Your task to perform on an android device: set the timer Image 0: 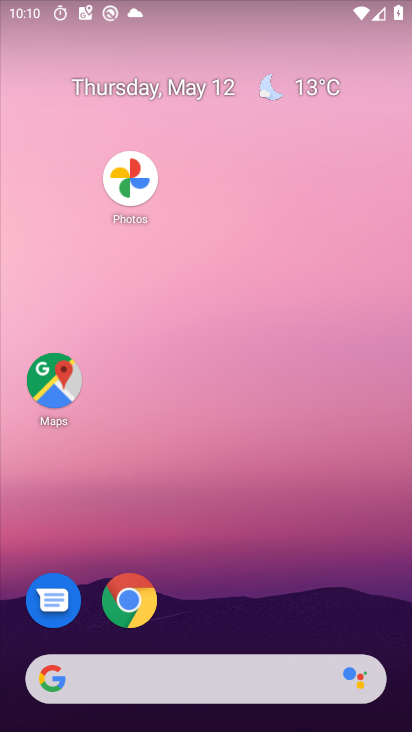
Step 0: drag from (209, 592) to (12, 78)
Your task to perform on an android device: set the timer Image 1: 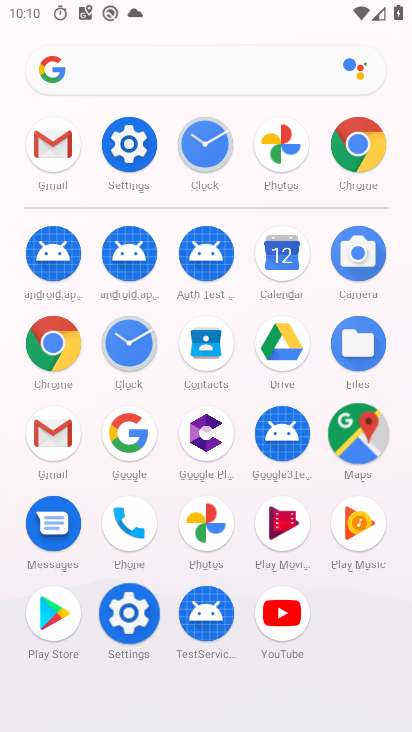
Step 1: click (123, 356)
Your task to perform on an android device: set the timer Image 2: 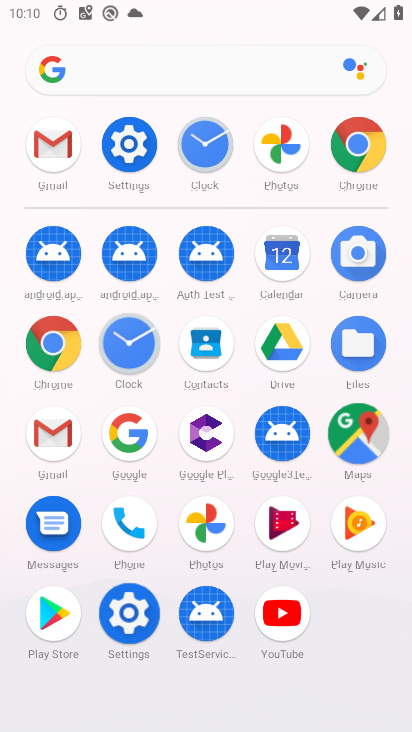
Step 2: click (123, 356)
Your task to perform on an android device: set the timer Image 3: 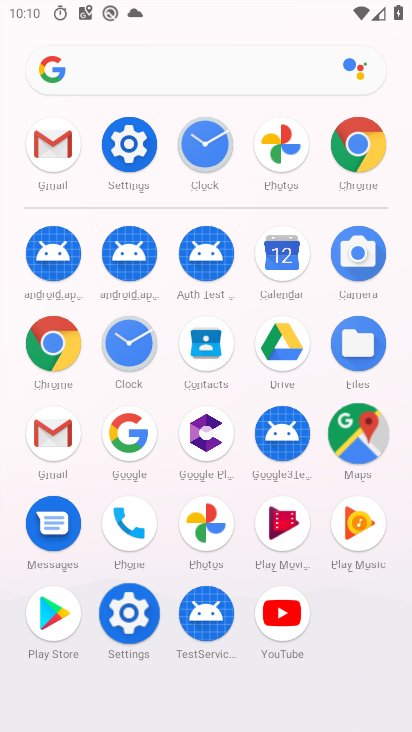
Step 3: click (123, 356)
Your task to perform on an android device: set the timer Image 4: 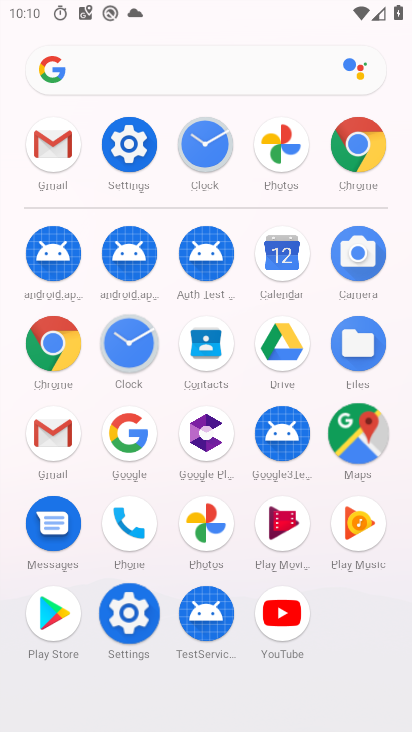
Step 4: click (122, 354)
Your task to perform on an android device: set the timer Image 5: 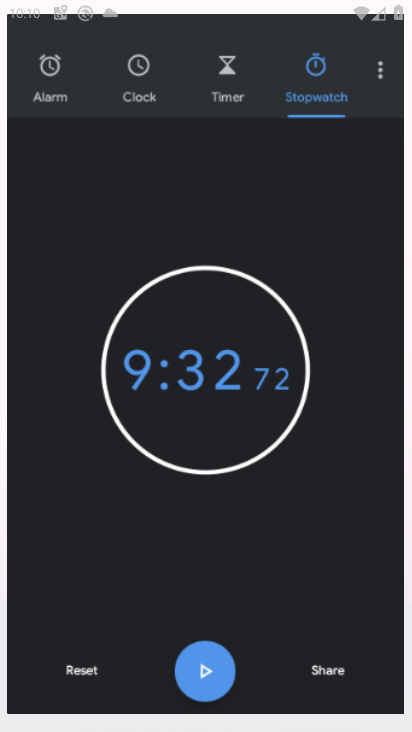
Step 5: click (123, 348)
Your task to perform on an android device: set the timer Image 6: 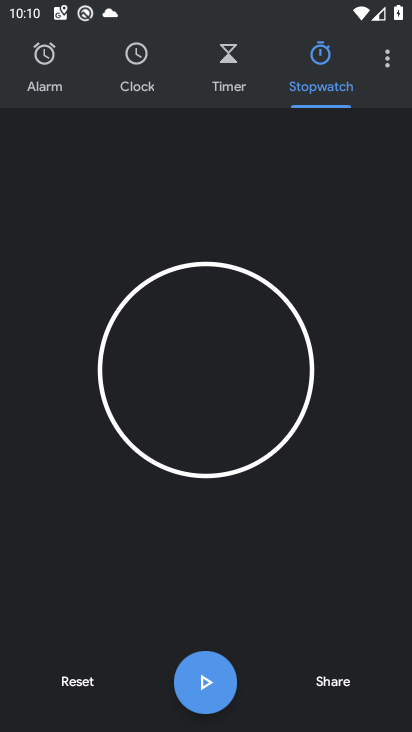
Step 6: click (125, 346)
Your task to perform on an android device: set the timer Image 7: 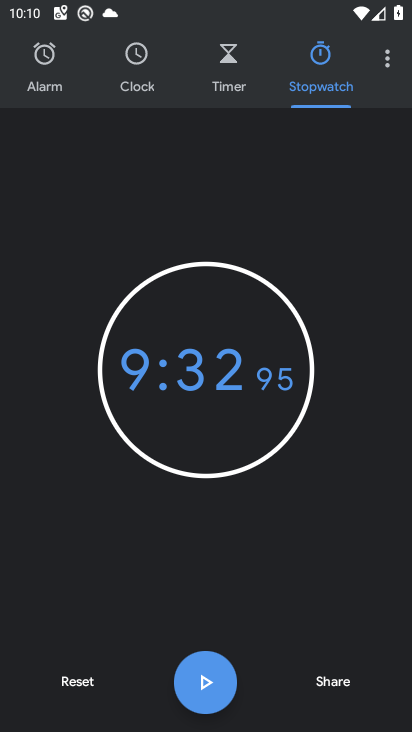
Step 7: click (232, 58)
Your task to perform on an android device: set the timer Image 8: 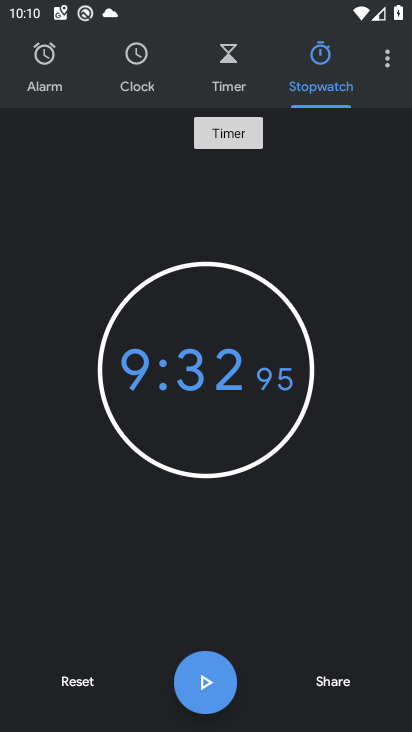
Step 8: click (224, 68)
Your task to perform on an android device: set the timer Image 9: 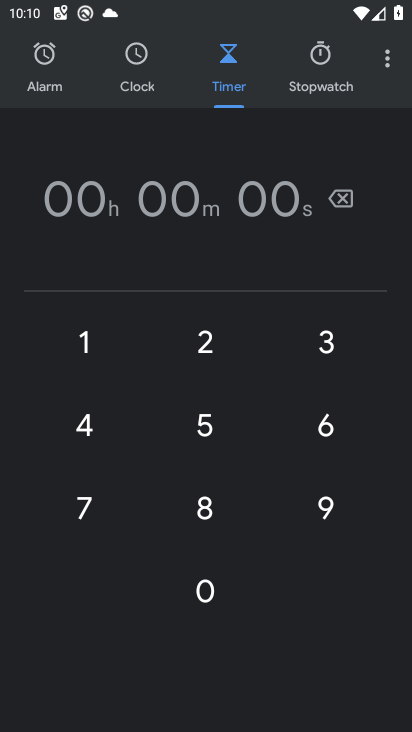
Step 9: click (203, 500)
Your task to perform on an android device: set the timer Image 10: 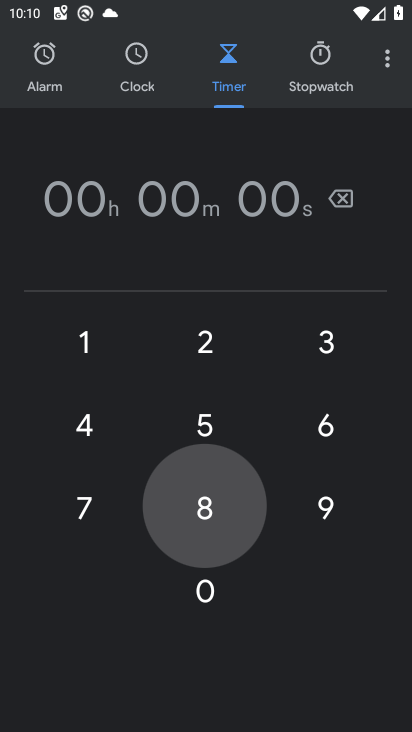
Step 10: click (203, 500)
Your task to perform on an android device: set the timer Image 11: 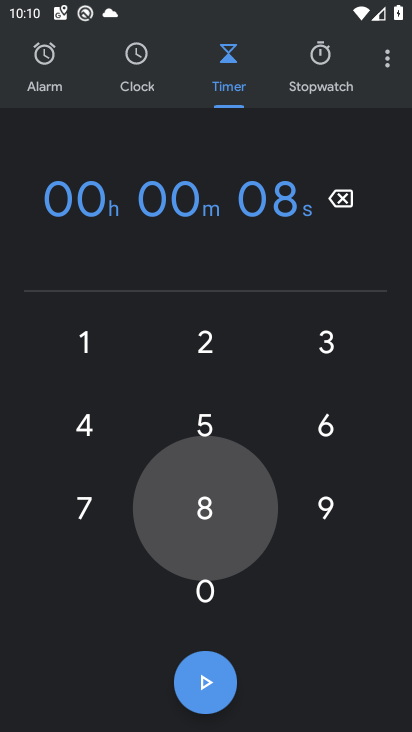
Step 11: click (205, 500)
Your task to perform on an android device: set the timer Image 12: 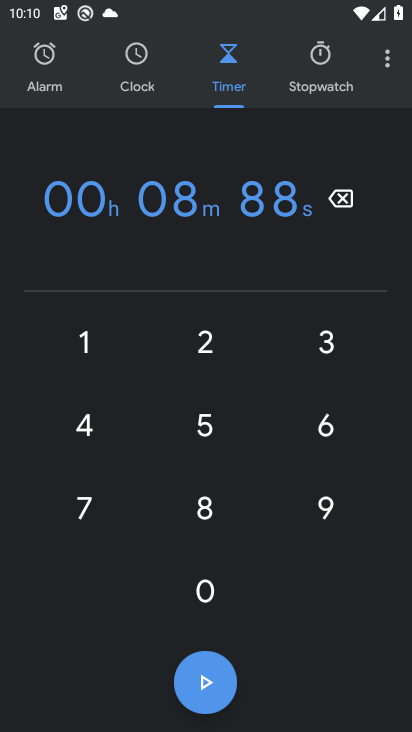
Step 12: click (199, 685)
Your task to perform on an android device: set the timer Image 13: 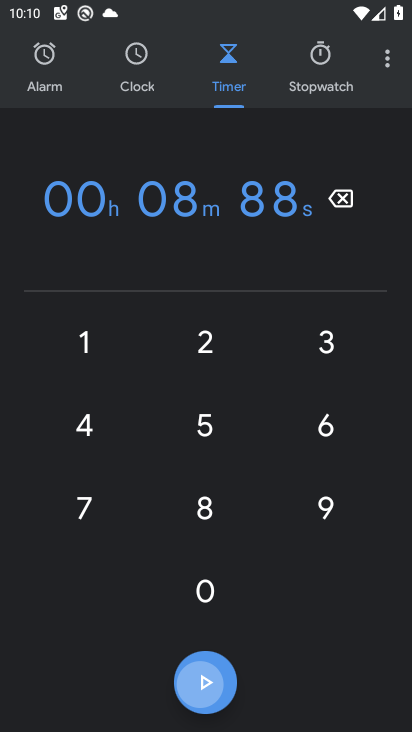
Step 13: click (200, 684)
Your task to perform on an android device: set the timer Image 14: 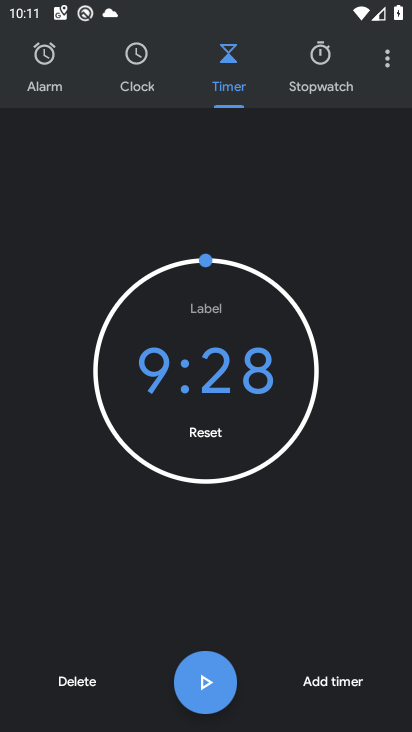
Step 14: click (201, 685)
Your task to perform on an android device: set the timer Image 15: 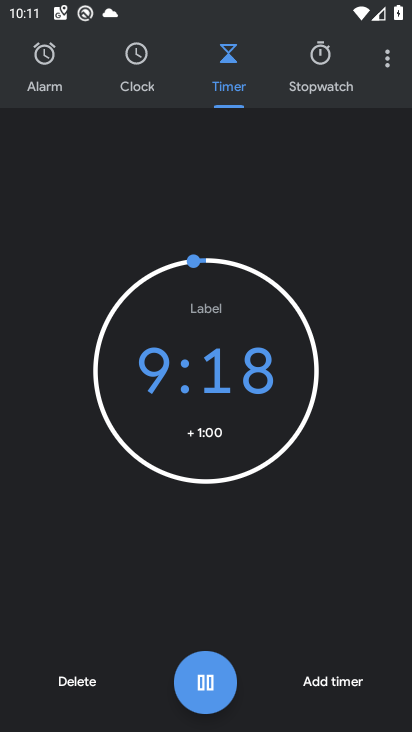
Step 15: click (207, 677)
Your task to perform on an android device: set the timer Image 16: 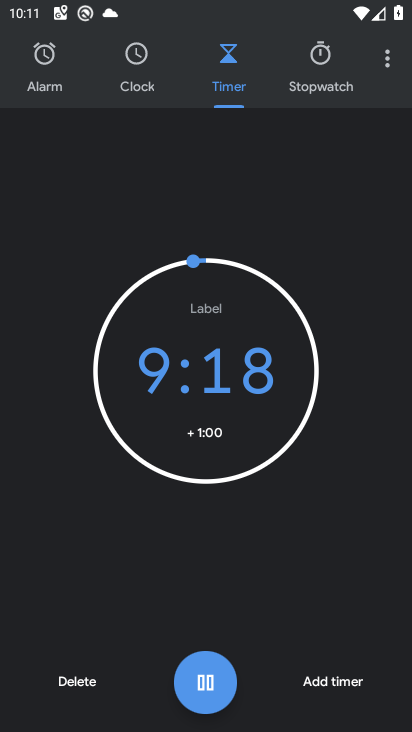
Step 16: click (207, 676)
Your task to perform on an android device: set the timer Image 17: 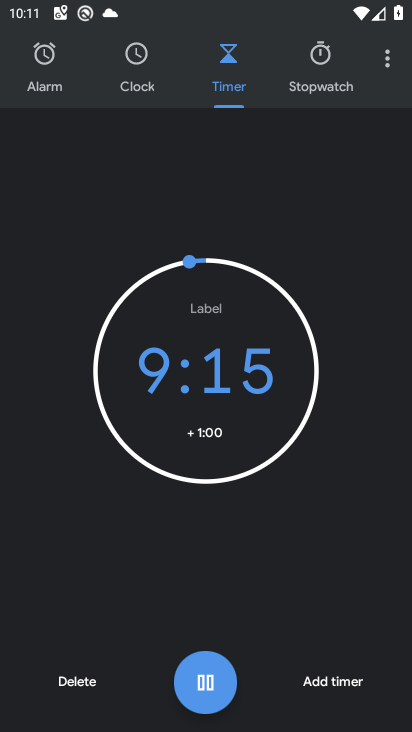
Step 17: click (205, 681)
Your task to perform on an android device: set the timer Image 18: 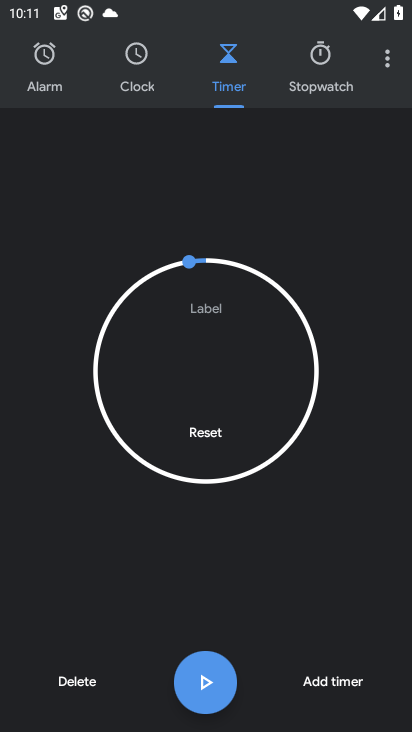
Step 18: task complete